Your task to perform on an android device: visit the assistant section in the google photos Image 0: 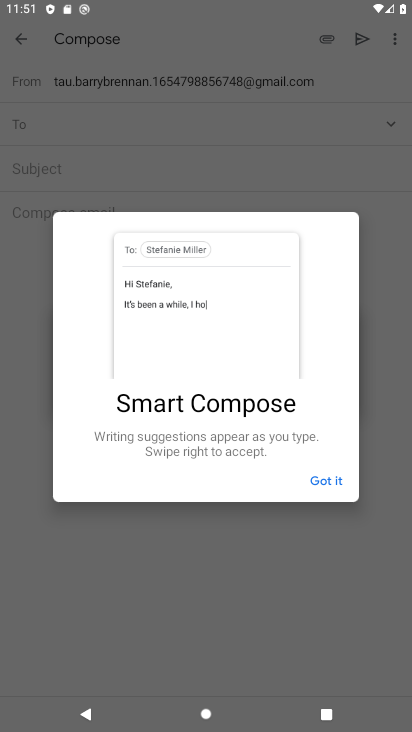
Step 0: press back button
Your task to perform on an android device: visit the assistant section in the google photos Image 1: 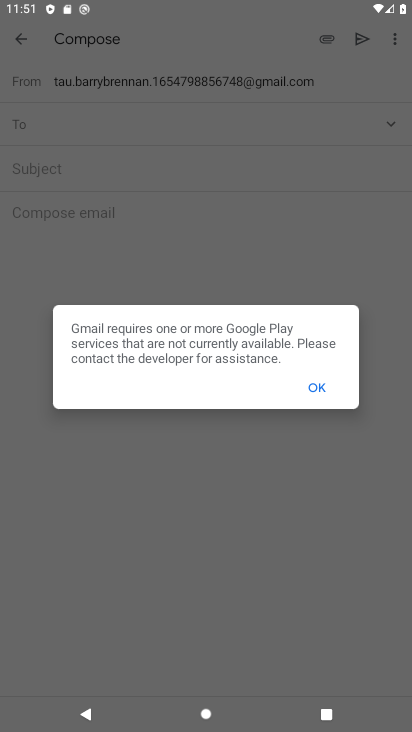
Step 1: click (303, 389)
Your task to perform on an android device: visit the assistant section in the google photos Image 2: 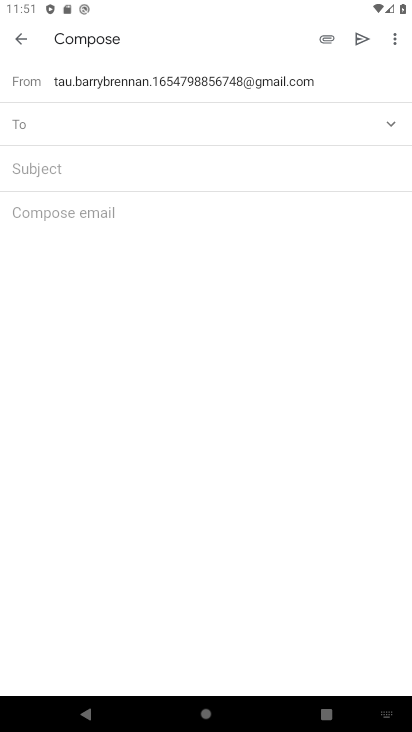
Step 2: press back button
Your task to perform on an android device: visit the assistant section in the google photos Image 3: 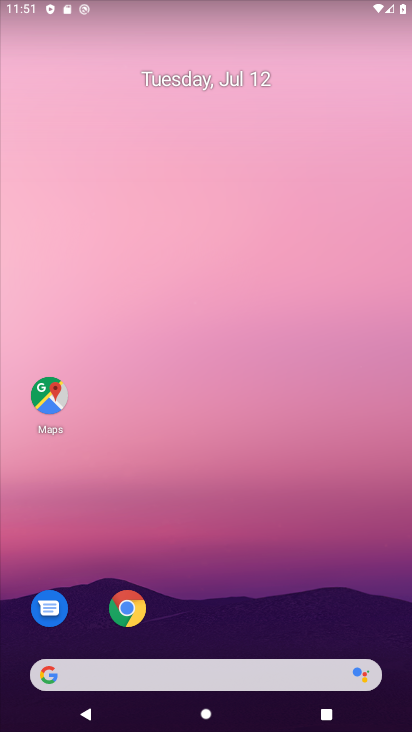
Step 3: drag from (257, 605) to (244, 162)
Your task to perform on an android device: visit the assistant section in the google photos Image 4: 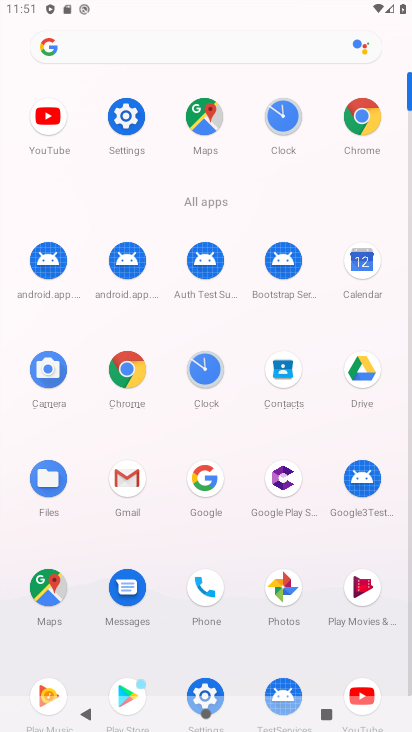
Step 4: click (282, 574)
Your task to perform on an android device: visit the assistant section in the google photos Image 5: 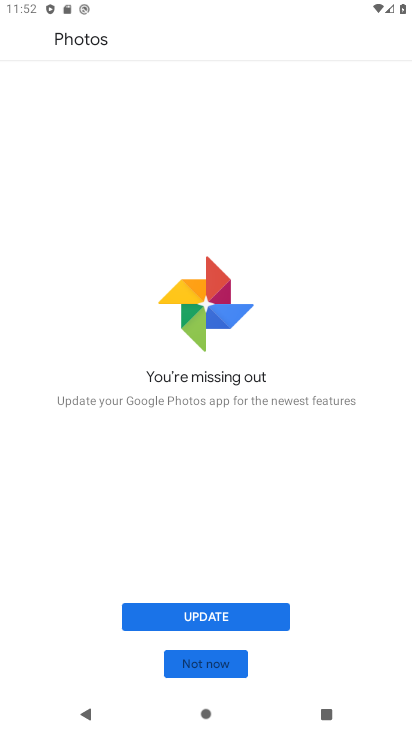
Step 5: press back button
Your task to perform on an android device: visit the assistant section in the google photos Image 6: 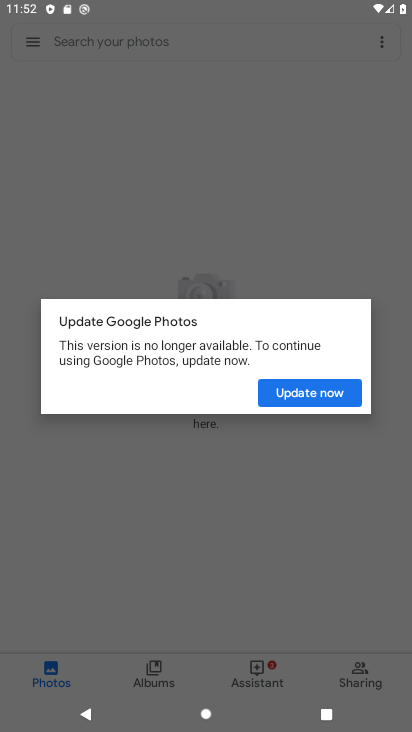
Step 6: press back button
Your task to perform on an android device: visit the assistant section in the google photos Image 7: 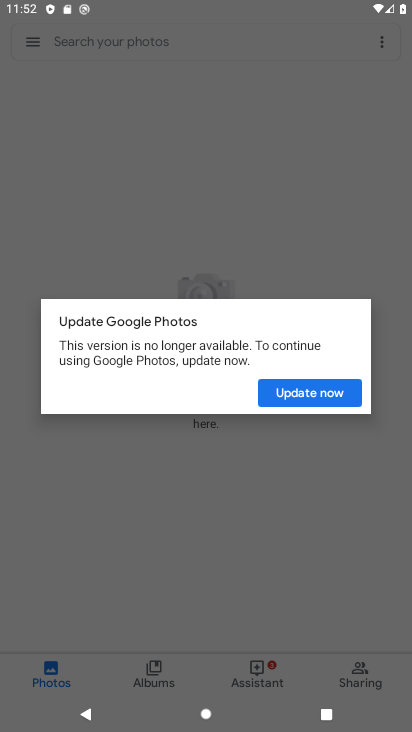
Step 7: press home button
Your task to perform on an android device: visit the assistant section in the google photos Image 8: 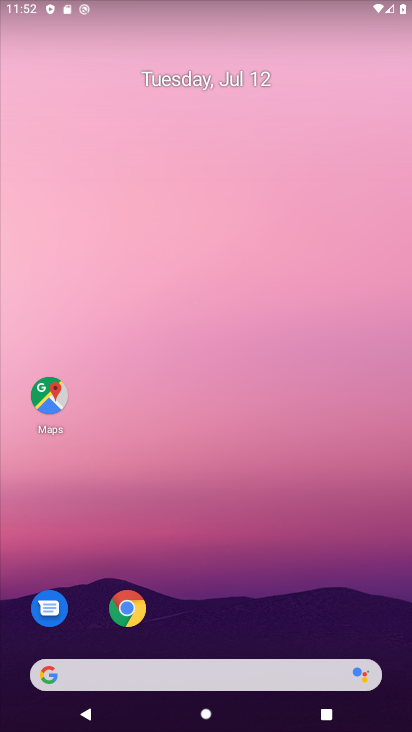
Step 8: drag from (209, 658) to (250, 88)
Your task to perform on an android device: visit the assistant section in the google photos Image 9: 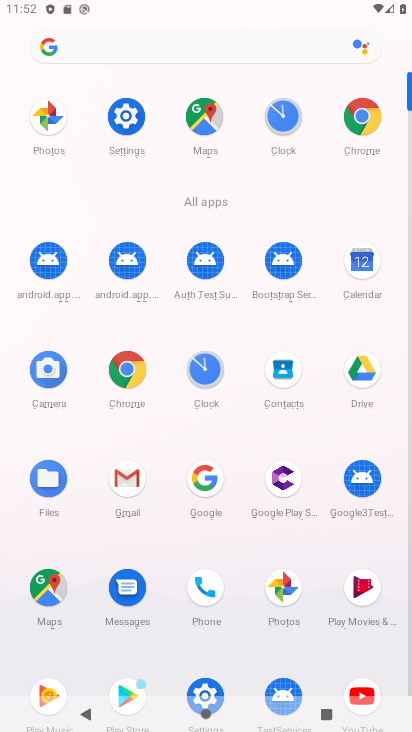
Step 9: click (278, 582)
Your task to perform on an android device: visit the assistant section in the google photos Image 10: 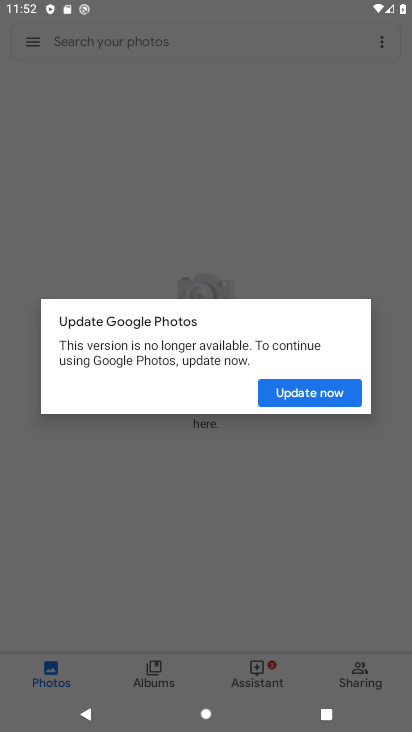
Step 10: click (303, 388)
Your task to perform on an android device: visit the assistant section in the google photos Image 11: 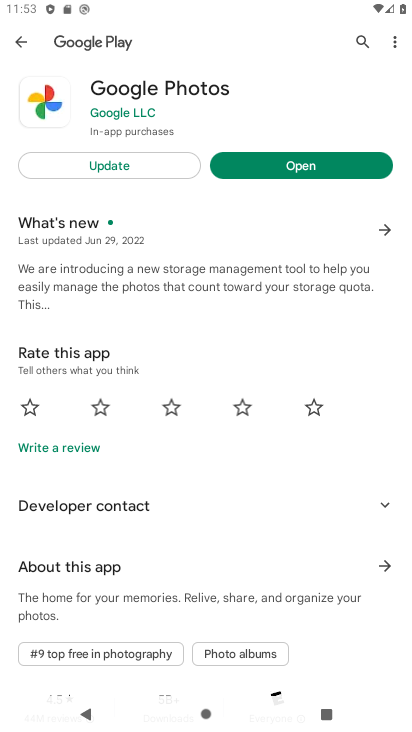
Step 11: click (275, 168)
Your task to perform on an android device: visit the assistant section in the google photos Image 12: 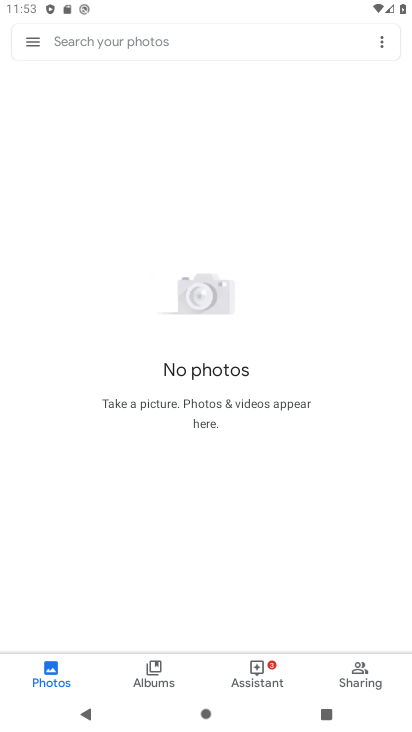
Step 12: click (260, 673)
Your task to perform on an android device: visit the assistant section in the google photos Image 13: 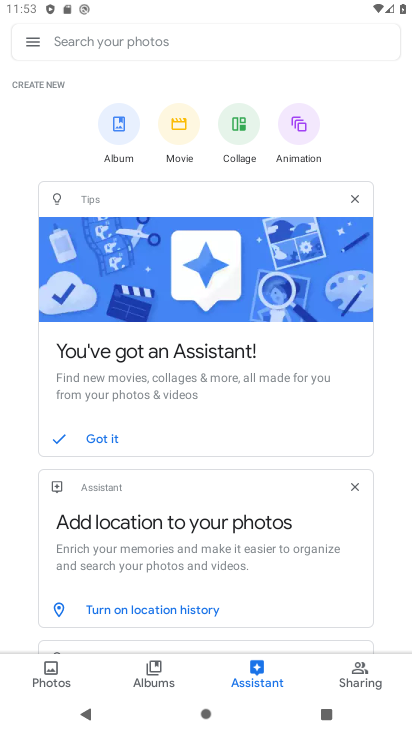
Step 13: task complete